Your task to perform on an android device: Show me the alarms in the clock app Image 0: 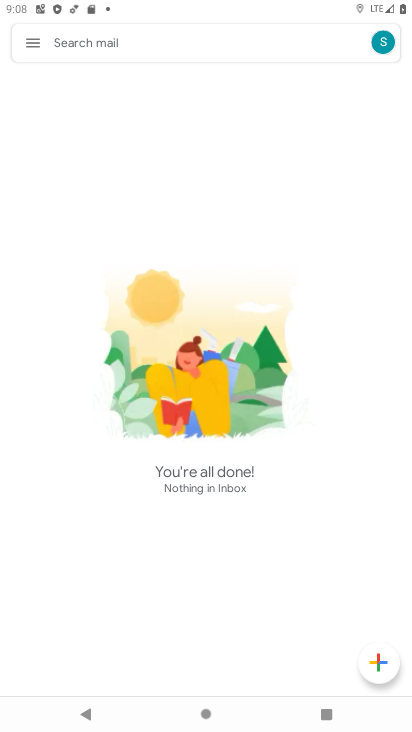
Step 0: press home button
Your task to perform on an android device: Show me the alarms in the clock app Image 1: 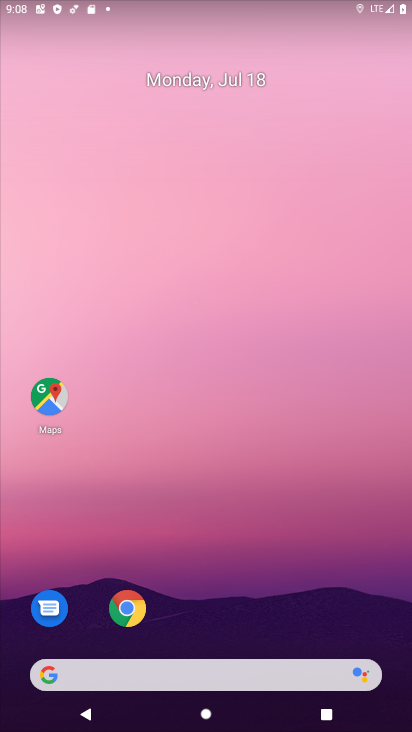
Step 1: drag from (46, 653) to (192, 250)
Your task to perform on an android device: Show me the alarms in the clock app Image 2: 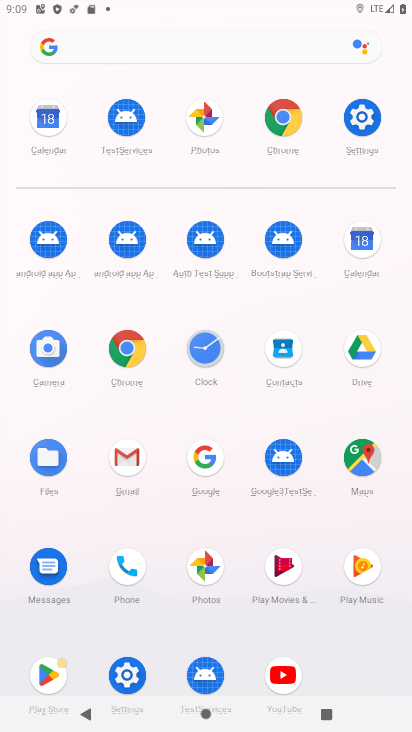
Step 2: click (191, 353)
Your task to perform on an android device: Show me the alarms in the clock app Image 3: 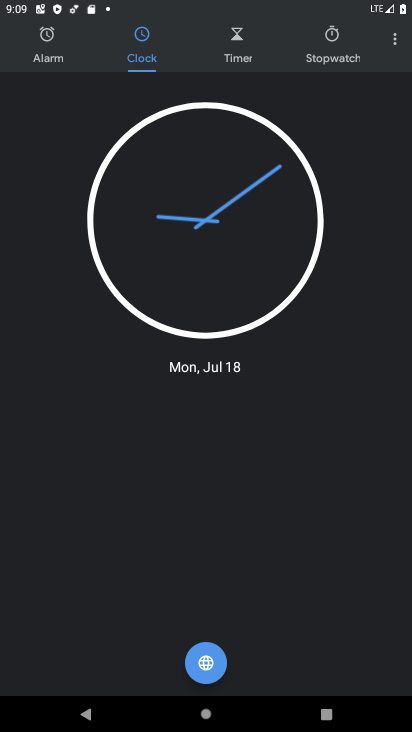
Step 3: click (40, 36)
Your task to perform on an android device: Show me the alarms in the clock app Image 4: 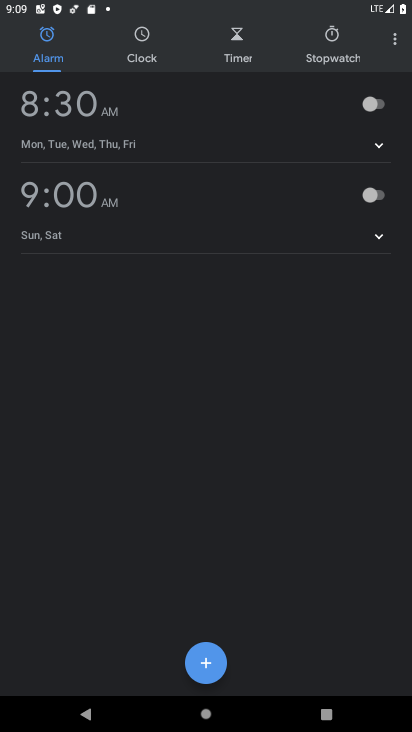
Step 4: click (371, 109)
Your task to perform on an android device: Show me the alarms in the clock app Image 5: 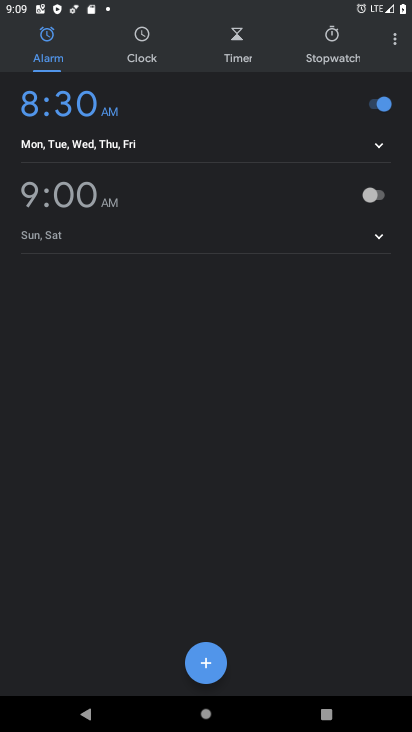
Step 5: task complete